Your task to perform on an android device: Go to calendar. Show me events next week Image 0: 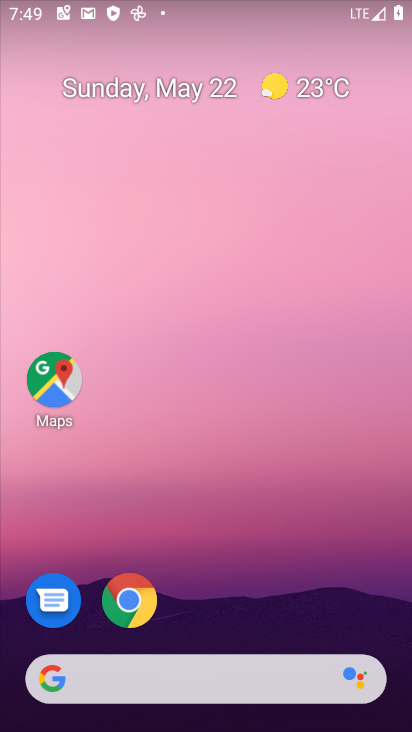
Step 0: drag from (294, 611) to (285, 30)
Your task to perform on an android device: Go to calendar. Show me events next week Image 1: 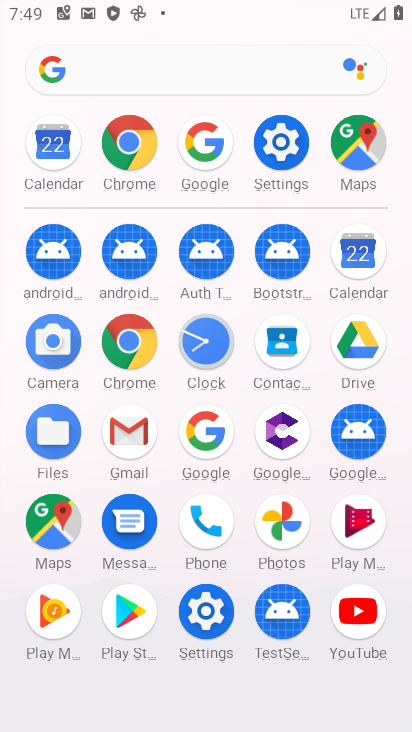
Step 1: click (352, 265)
Your task to perform on an android device: Go to calendar. Show me events next week Image 2: 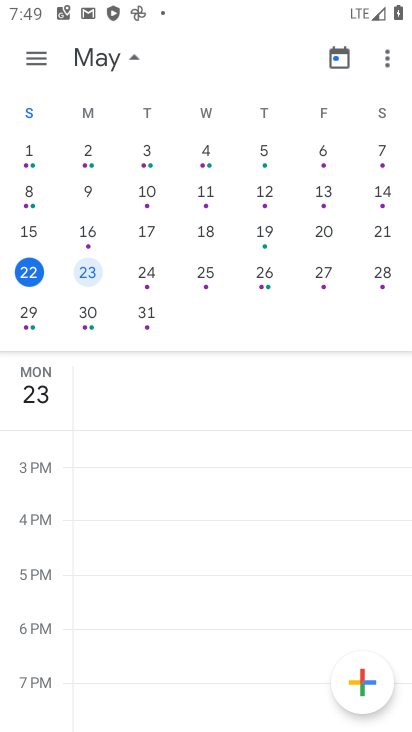
Step 2: click (44, 65)
Your task to perform on an android device: Go to calendar. Show me events next week Image 3: 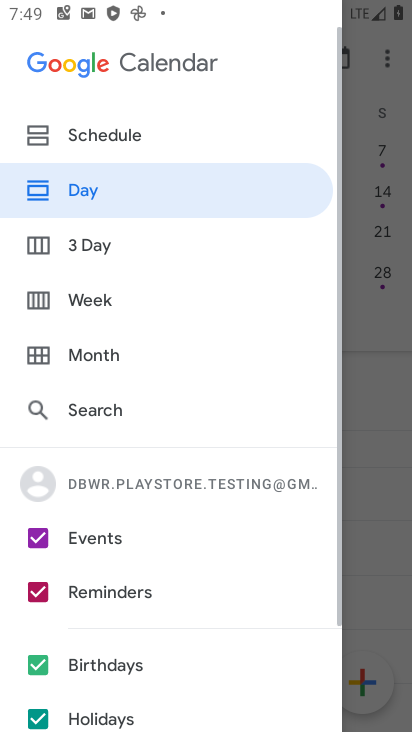
Step 3: click (125, 121)
Your task to perform on an android device: Go to calendar. Show me events next week Image 4: 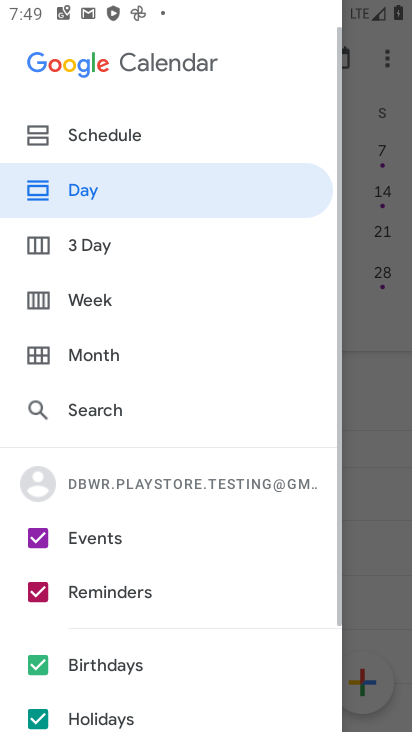
Step 4: click (140, 131)
Your task to perform on an android device: Go to calendar. Show me events next week Image 5: 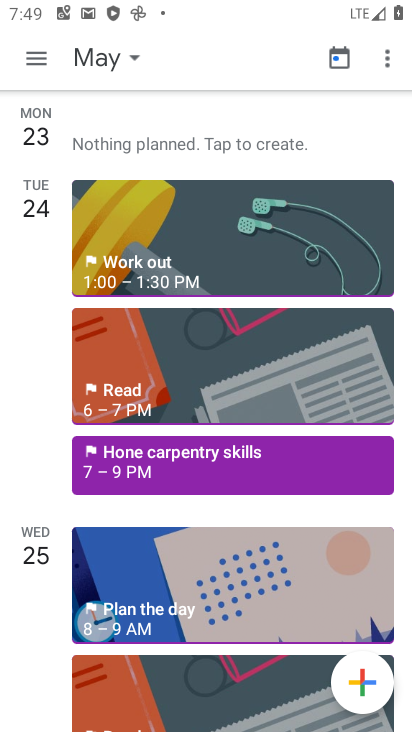
Step 5: task complete